Your task to perform on an android device: Show me the alarms in the clock app Image 0: 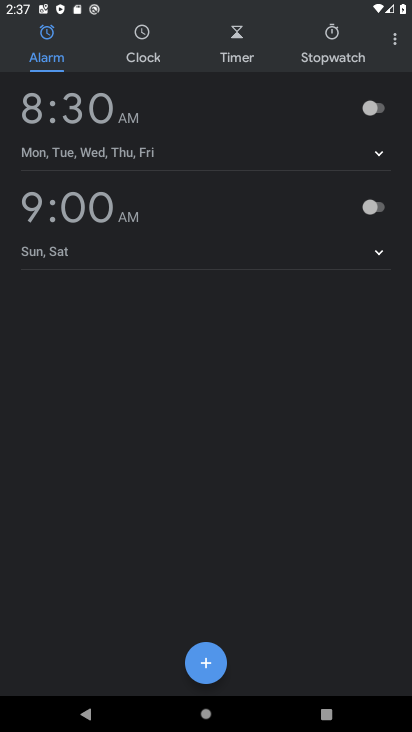
Step 0: press home button
Your task to perform on an android device: Show me the alarms in the clock app Image 1: 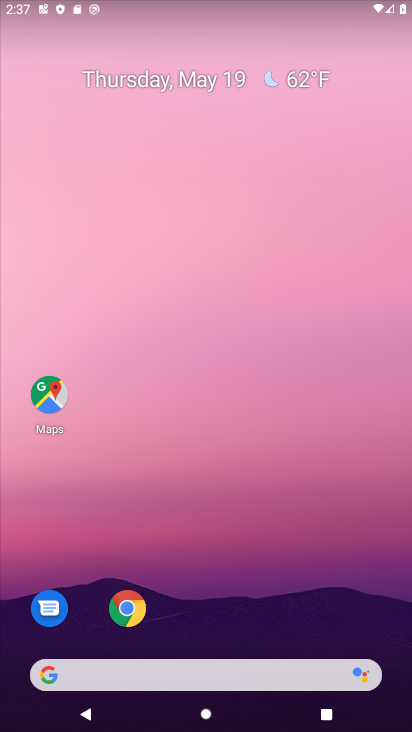
Step 1: drag from (235, 579) to (262, 140)
Your task to perform on an android device: Show me the alarms in the clock app Image 2: 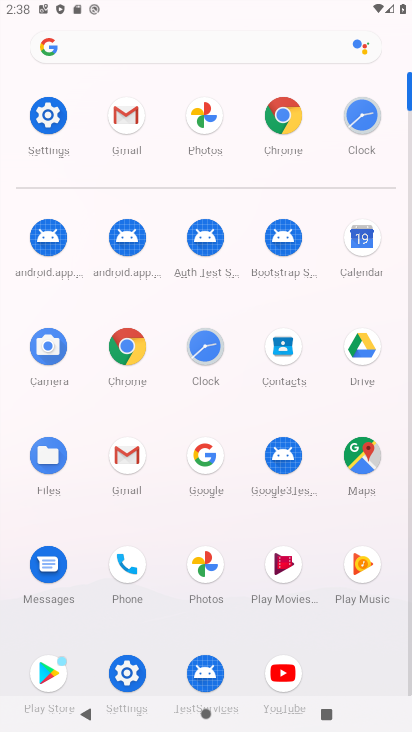
Step 2: click (364, 130)
Your task to perform on an android device: Show me the alarms in the clock app Image 3: 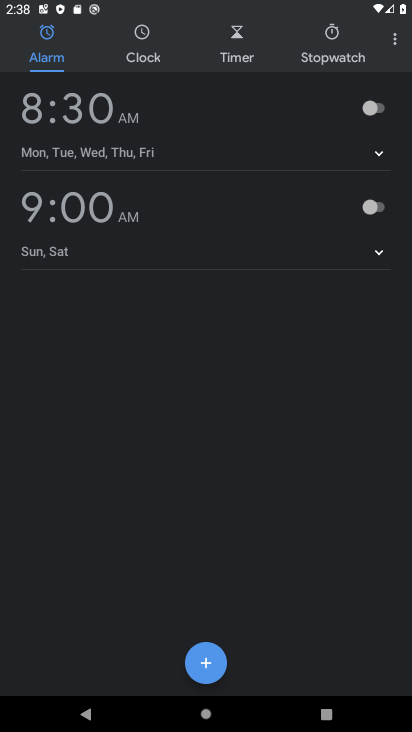
Step 3: click (318, 119)
Your task to perform on an android device: Show me the alarms in the clock app Image 4: 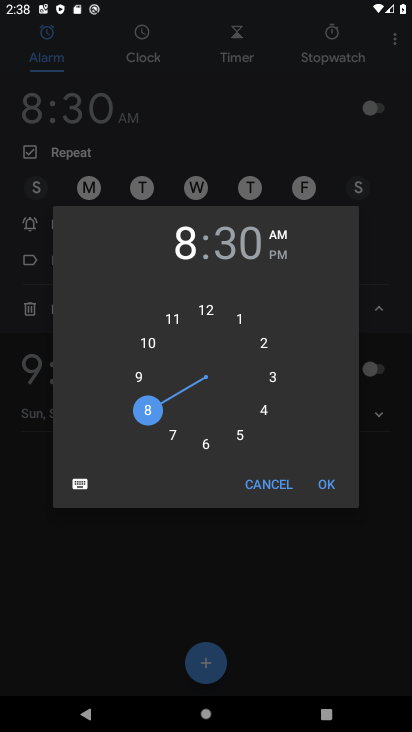
Step 4: task complete